Your task to perform on an android device: clear history in the chrome app Image 0: 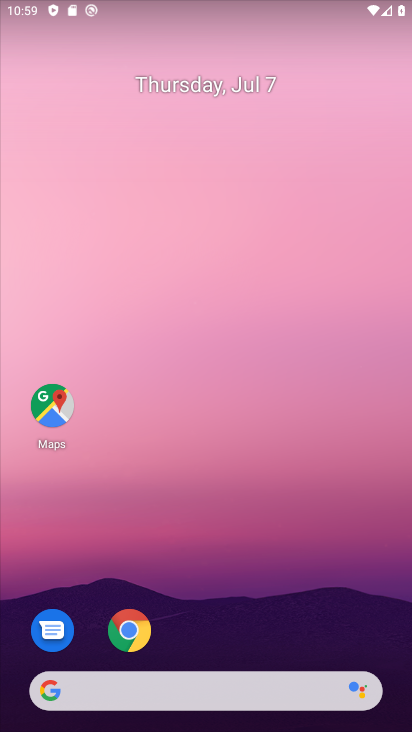
Step 0: click (127, 629)
Your task to perform on an android device: clear history in the chrome app Image 1: 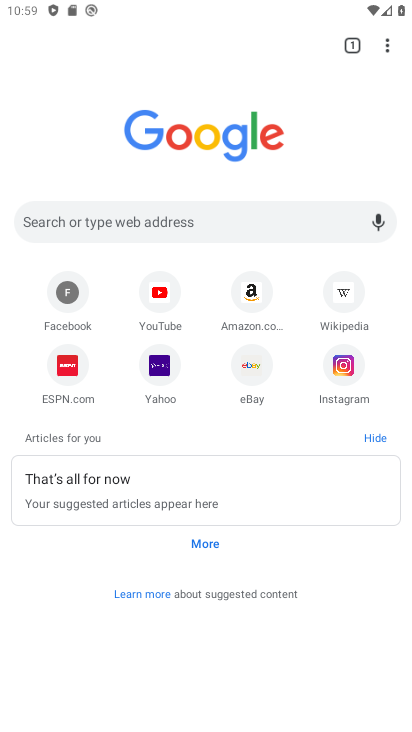
Step 1: click (384, 49)
Your task to perform on an android device: clear history in the chrome app Image 2: 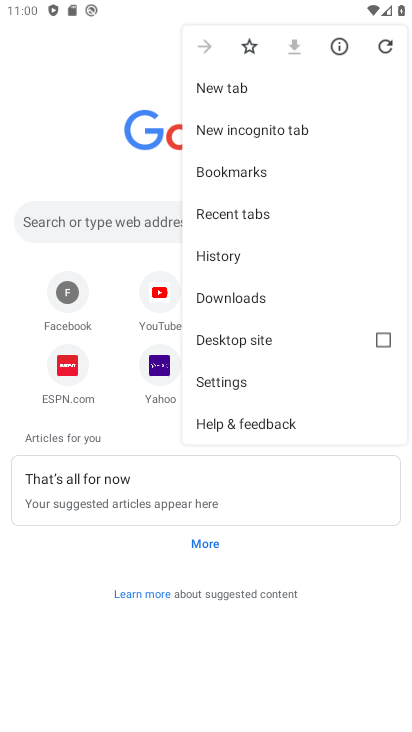
Step 2: click (229, 243)
Your task to perform on an android device: clear history in the chrome app Image 3: 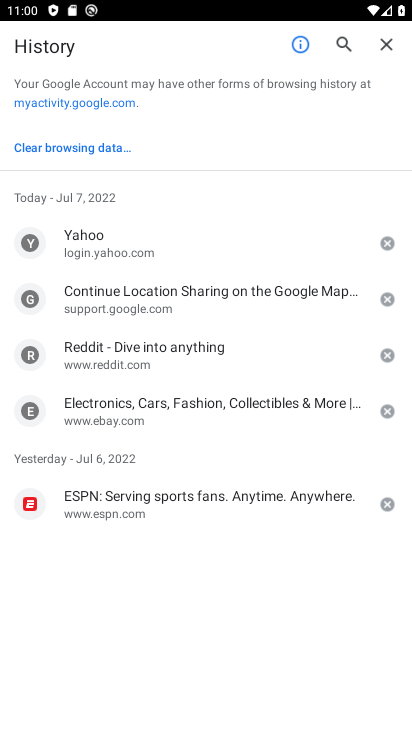
Step 3: click (77, 149)
Your task to perform on an android device: clear history in the chrome app Image 4: 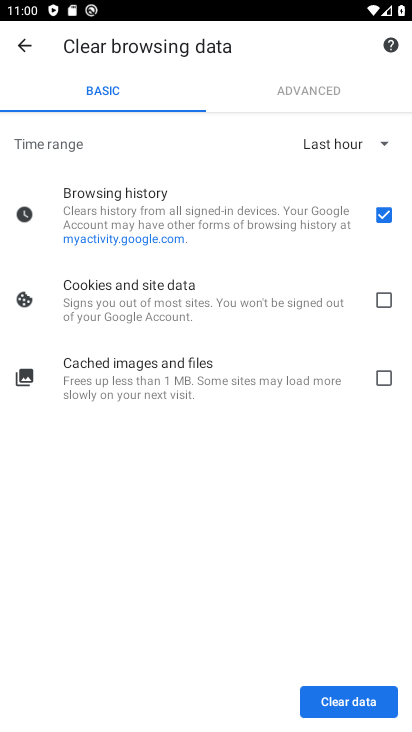
Step 4: click (349, 706)
Your task to perform on an android device: clear history in the chrome app Image 5: 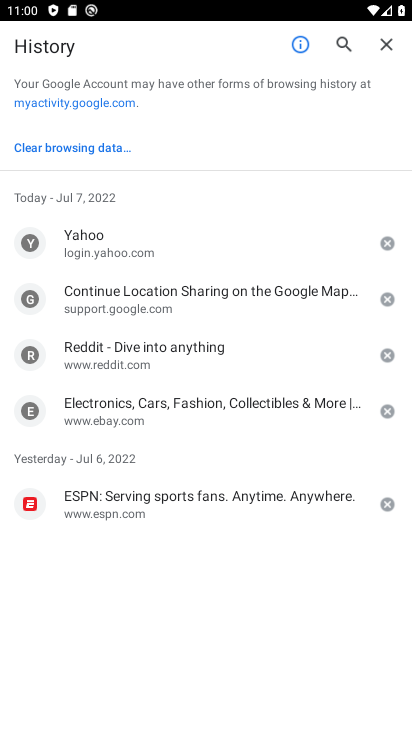
Step 5: task complete